Your task to perform on an android device: Go to CNN.com Image 0: 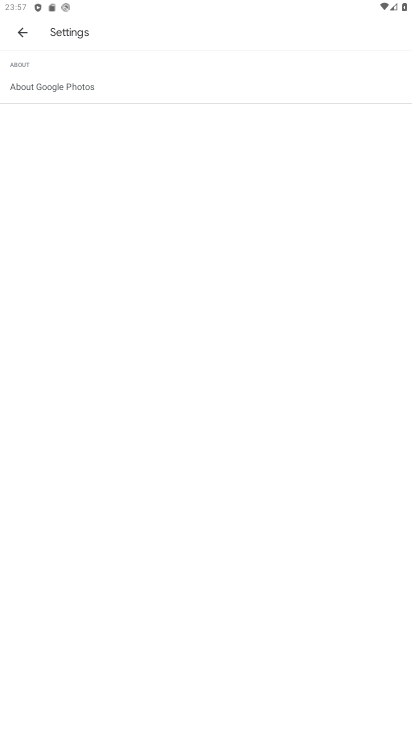
Step 0: press home button
Your task to perform on an android device: Go to CNN.com Image 1: 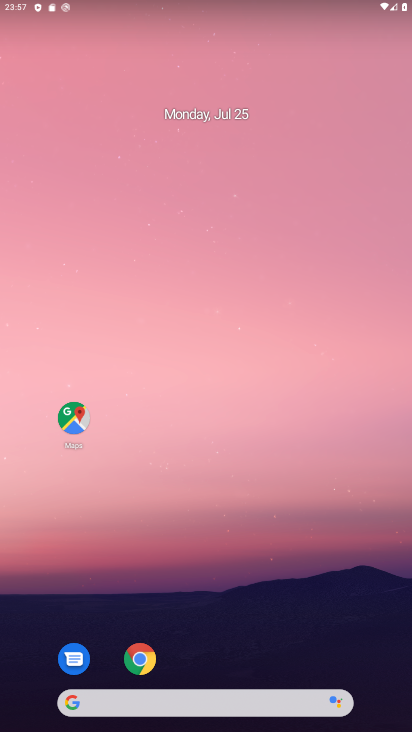
Step 1: drag from (243, 640) to (359, 109)
Your task to perform on an android device: Go to CNN.com Image 2: 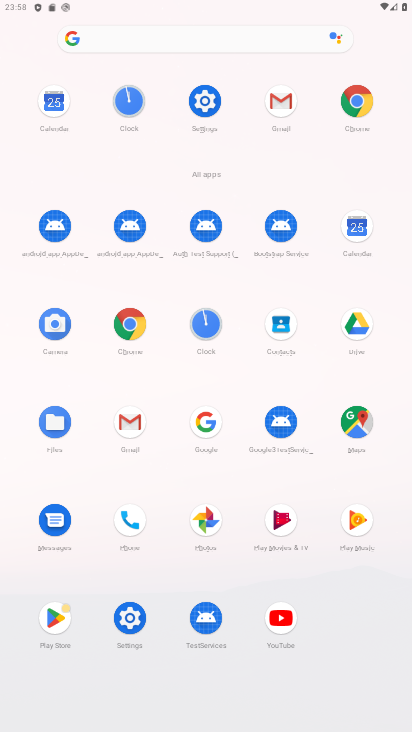
Step 2: click (360, 98)
Your task to perform on an android device: Go to CNN.com Image 3: 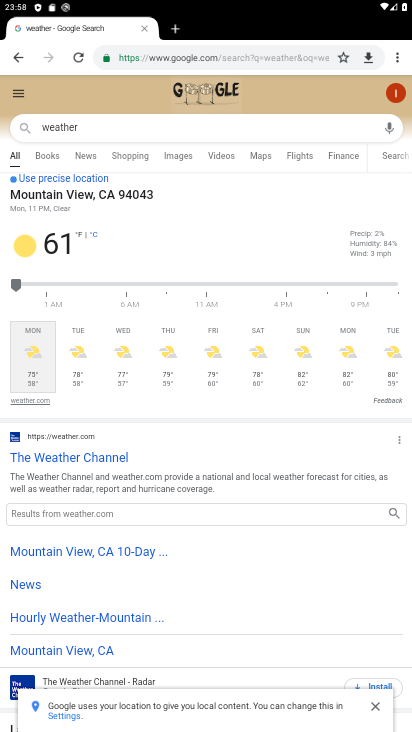
Step 3: click (262, 57)
Your task to perform on an android device: Go to CNN.com Image 4: 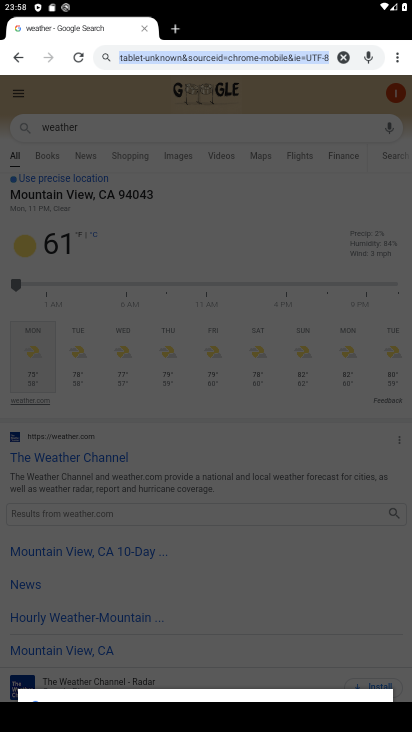
Step 4: type "cnn.com"
Your task to perform on an android device: Go to CNN.com Image 5: 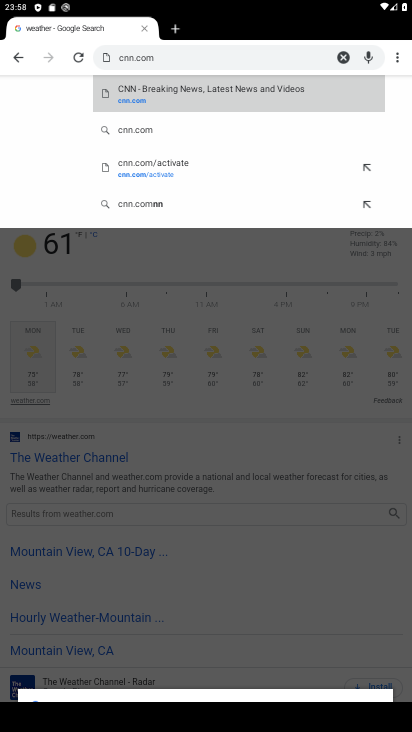
Step 5: click (143, 97)
Your task to perform on an android device: Go to CNN.com Image 6: 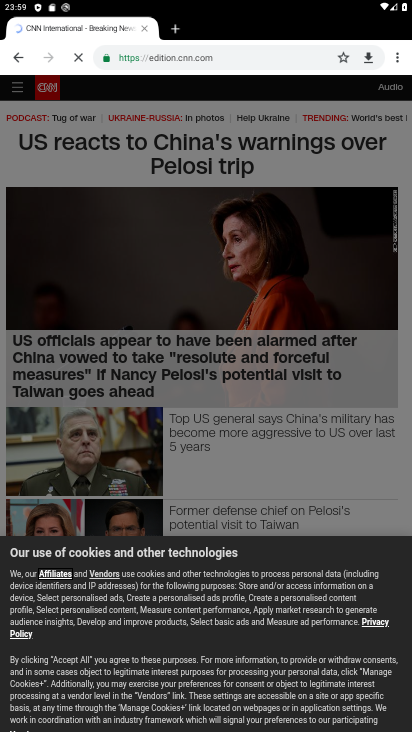
Step 6: task complete